Your task to perform on an android device: stop showing notifications on the lock screen Image 0: 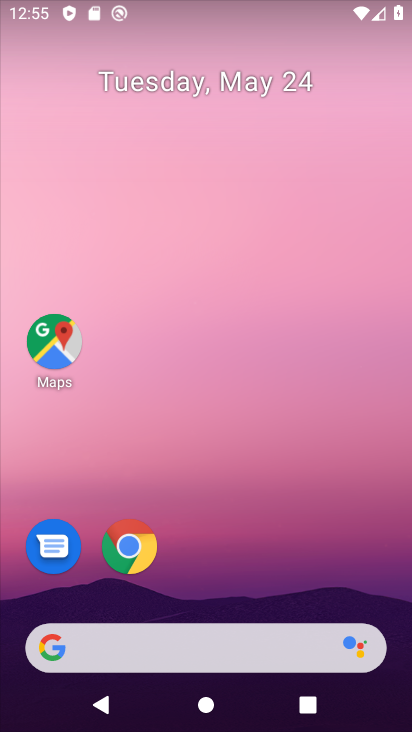
Step 0: drag from (161, 546) to (245, 141)
Your task to perform on an android device: stop showing notifications on the lock screen Image 1: 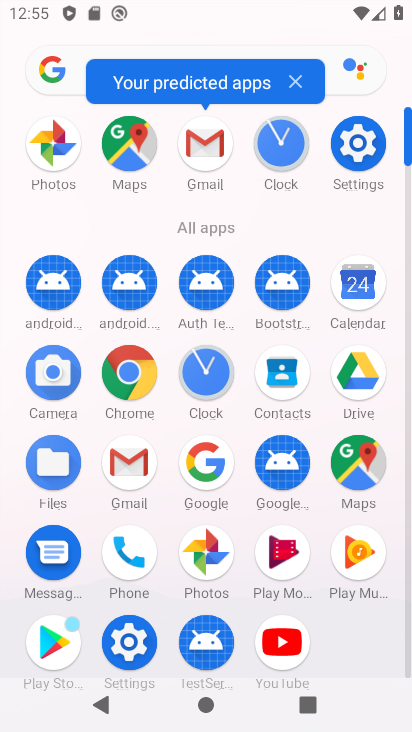
Step 1: click (370, 153)
Your task to perform on an android device: stop showing notifications on the lock screen Image 2: 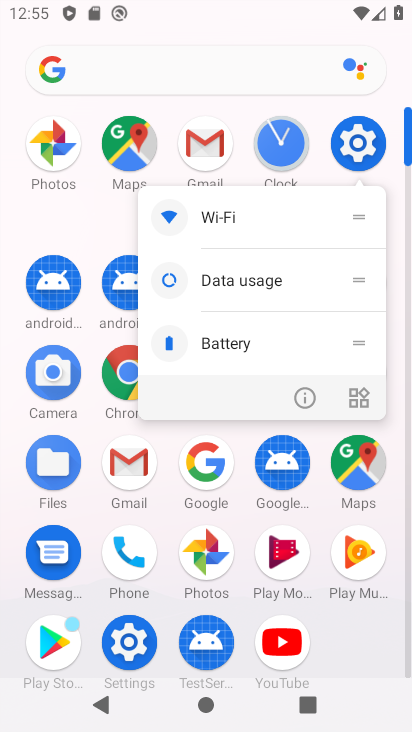
Step 2: click (301, 409)
Your task to perform on an android device: stop showing notifications on the lock screen Image 3: 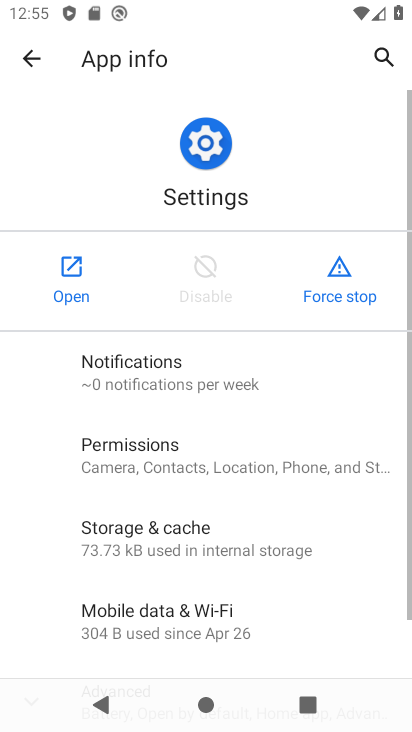
Step 3: click (70, 292)
Your task to perform on an android device: stop showing notifications on the lock screen Image 4: 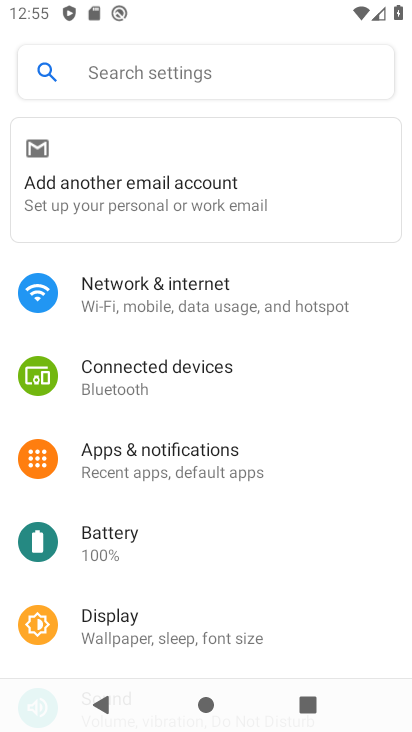
Step 4: drag from (177, 640) to (230, 116)
Your task to perform on an android device: stop showing notifications on the lock screen Image 5: 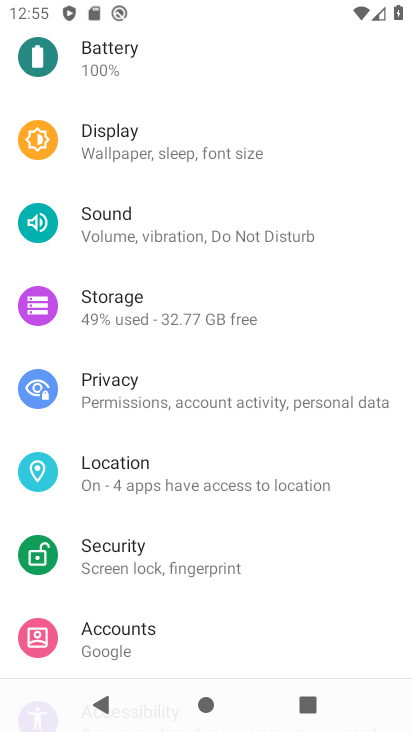
Step 5: drag from (173, 593) to (257, 296)
Your task to perform on an android device: stop showing notifications on the lock screen Image 6: 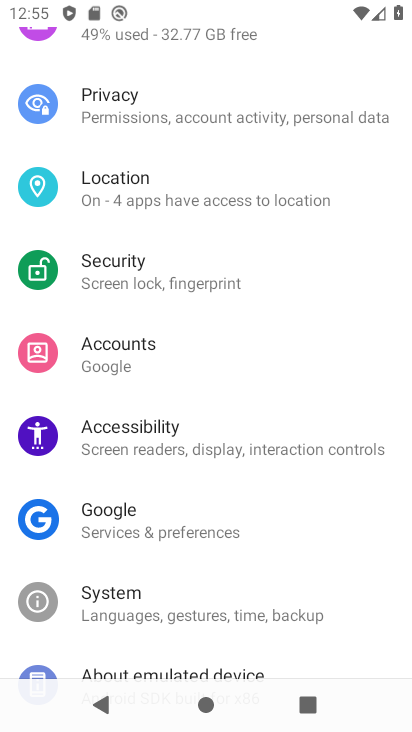
Step 6: drag from (254, 307) to (217, 729)
Your task to perform on an android device: stop showing notifications on the lock screen Image 7: 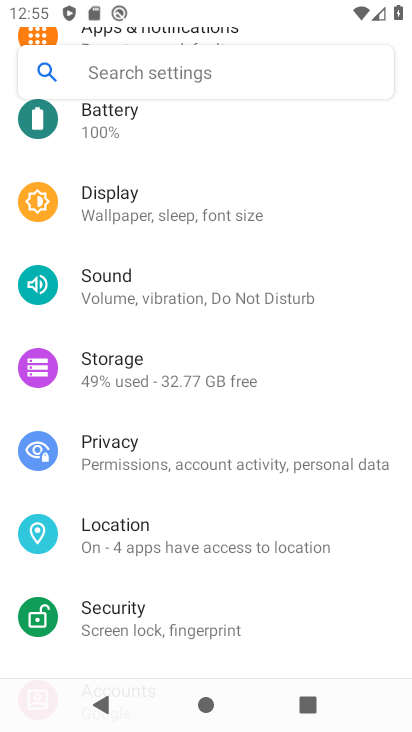
Step 7: drag from (147, 218) to (246, 693)
Your task to perform on an android device: stop showing notifications on the lock screen Image 8: 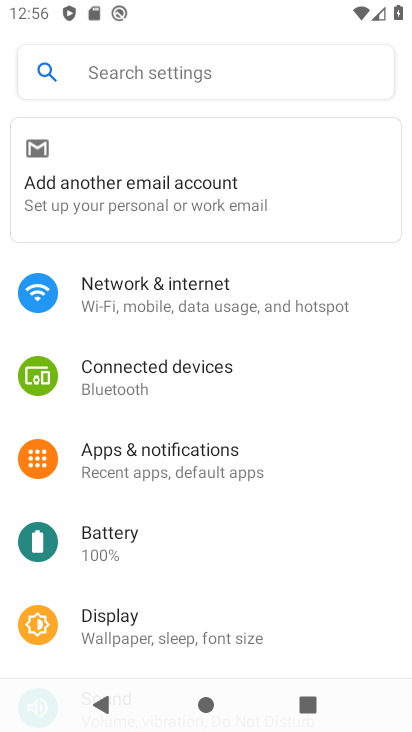
Step 8: click (150, 450)
Your task to perform on an android device: stop showing notifications on the lock screen Image 9: 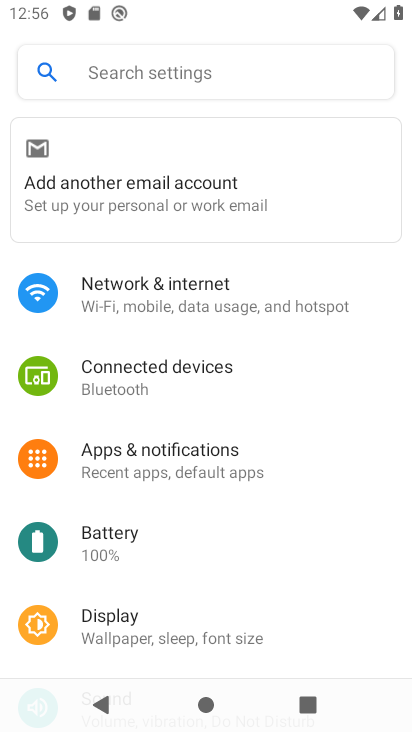
Step 9: drag from (197, 563) to (311, 163)
Your task to perform on an android device: stop showing notifications on the lock screen Image 10: 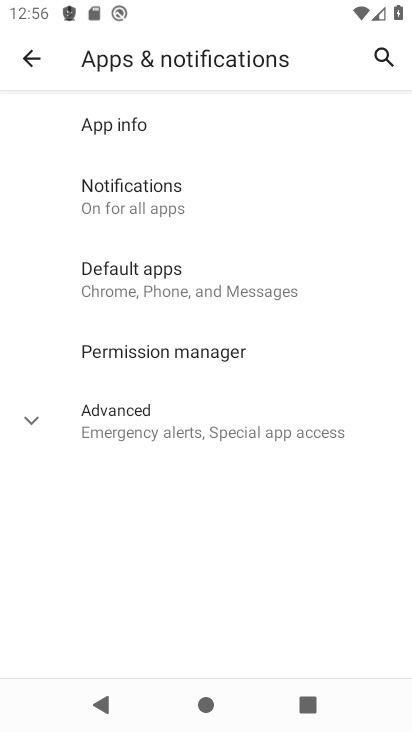
Step 10: drag from (194, 513) to (285, 202)
Your task to perform on an android device: stop showing notifications on the lock screen Image 11: 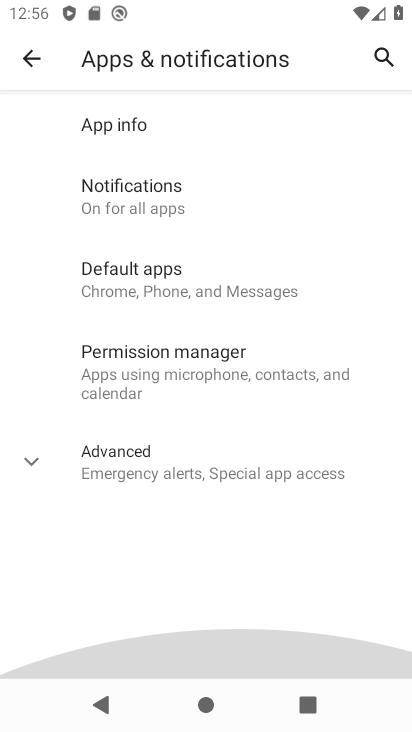
Step 11: drag from (283, 189) to (235, 591)
Your task to perform on an android device: stop showing notifications on the lock screen Image 12: 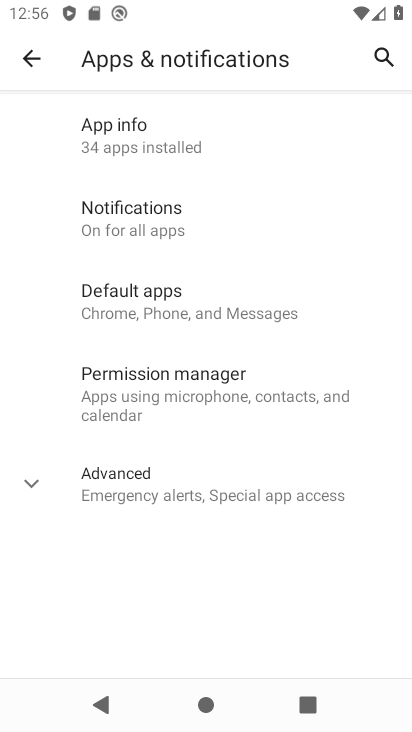
Step 12: drag from (245, 532) to (274, 161)
Your task to perform on an android device: stop showing notifications on the lock screen Image 13: 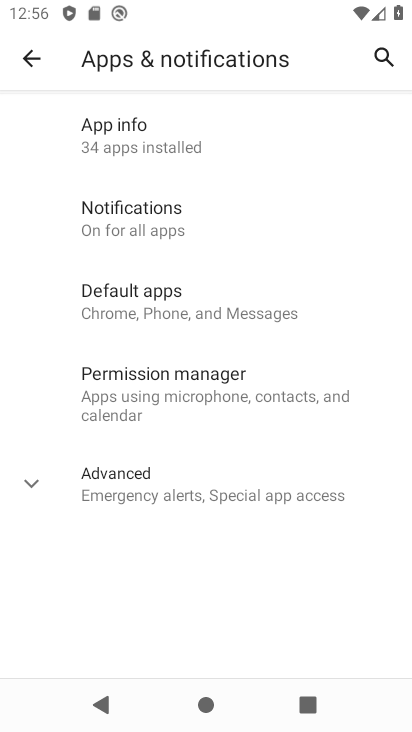
Step 13: drag from (227, 233) to (214, 730)
Your task to perform on an android device: stop showing notifications on the lock screen Image 14: 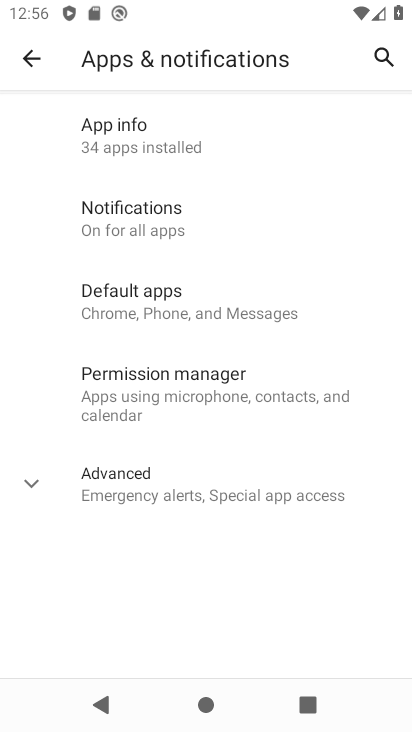
Step 14: click (22, 56)
Your task to perform on an android device: stop showing notifications on the lock screen Image 15: 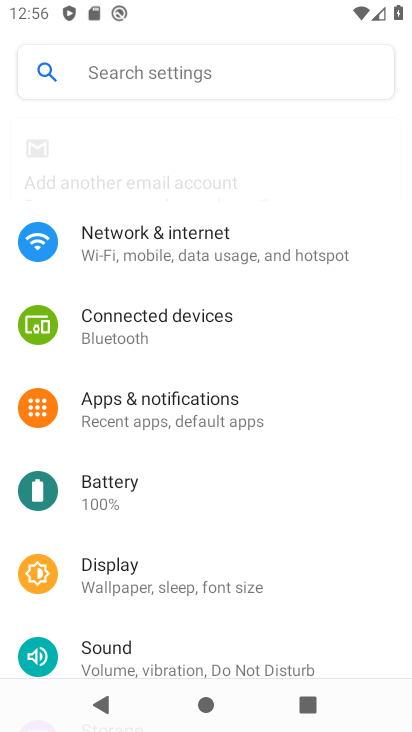
Step 15: drag from (222, 603) to (297, 41)
Your task to perform on an android device: stop showing notifications on the lock screen Image 16: 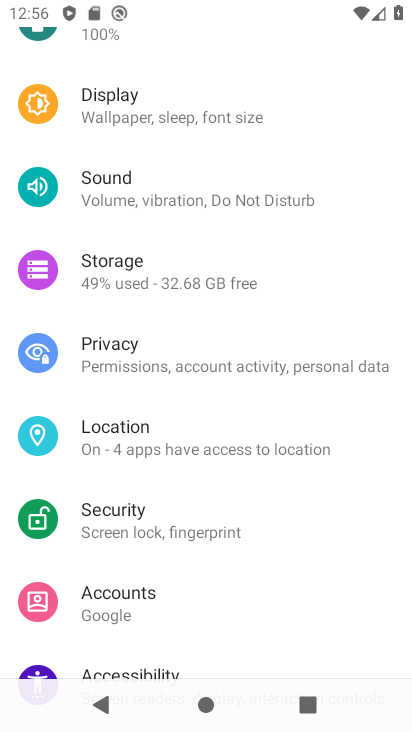
Step 16: drag from (215, 594) to (288, 195)
Your task to perform on an android device: stop showing notifications on the lock screen Image 17: 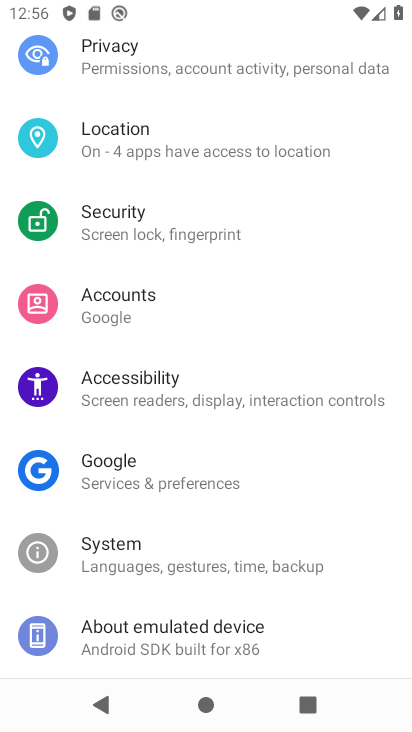
Step 17: drag from (286, 190) to (245, 721)
Your task to perform on an android device: stop showing notifications on the lock screen Image 18: 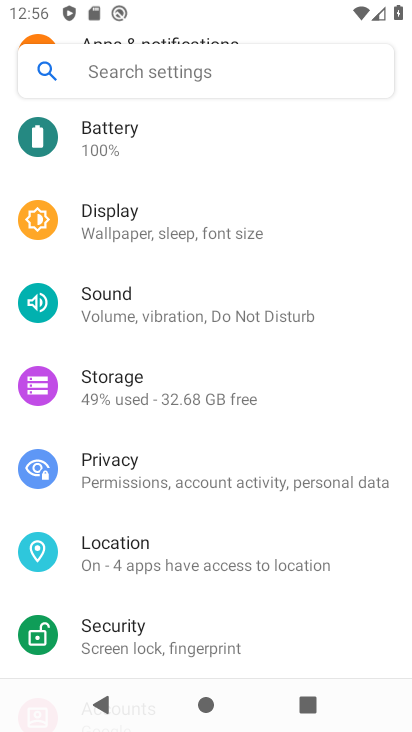
Step 18: drag from (177, 413) to (346, 704)
Your task to perform on an android device: stop showing notifications on the lock screen Image 19: 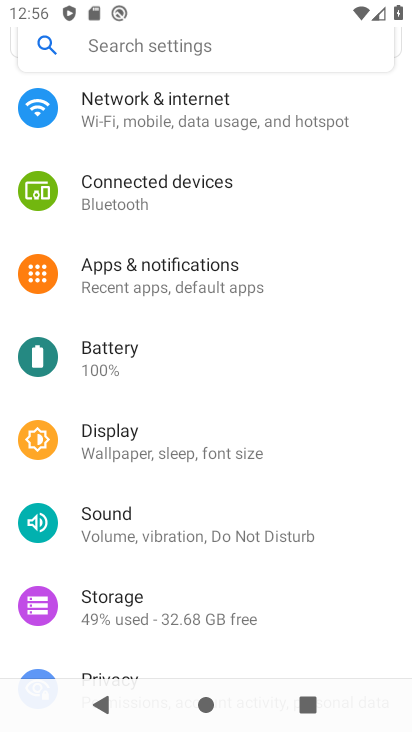
Step 19: click (161, 294)
Your task to perform on an android device: stop showing notifications on the lock screen Image 20: 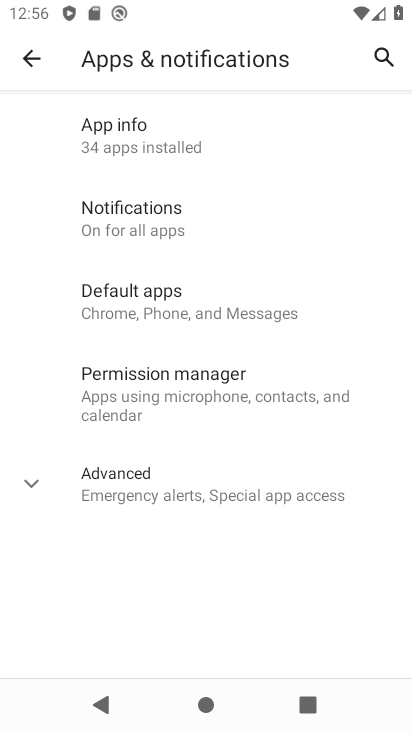
Step 20: click (140, 194)
Your task to perform on an android device: stop showing notifications on the lock screen Image 21: 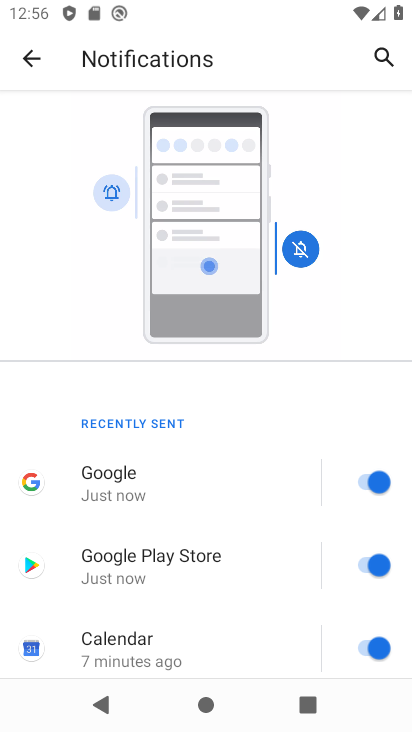
Step 21: drag from (213, 571) to (379, 32)
Your task to perform on an android device: stop showing notifications on the lock screen Image 22: 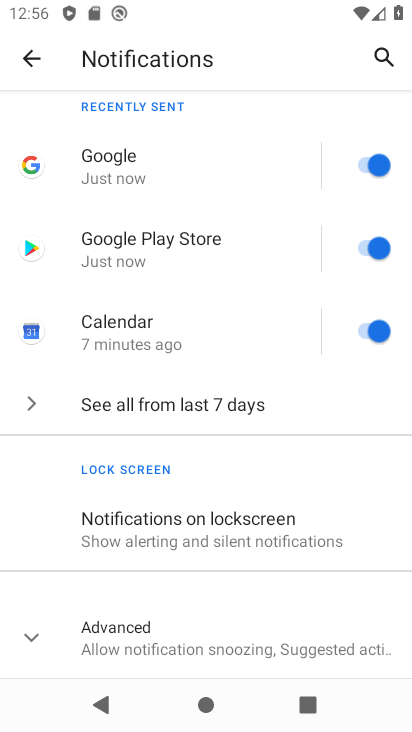
Step 22: click (177, 529)
Your task to perform on an android device: stop showing notifications on the lock screen Image 23: 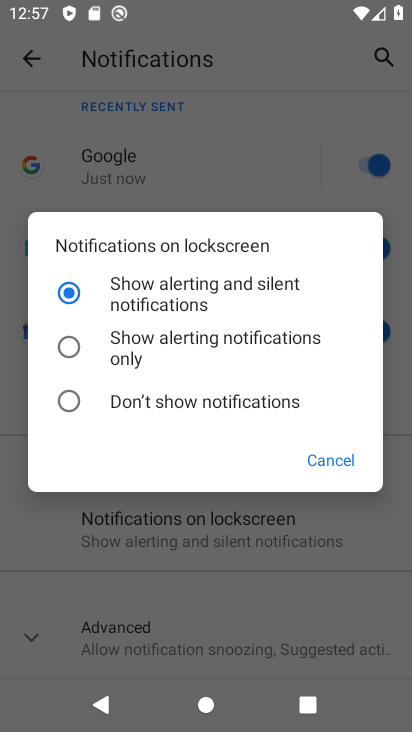
Step 23: click (90, 390)
Your task to perform on an android device: stop showing notifications on the lock screen Image 24: 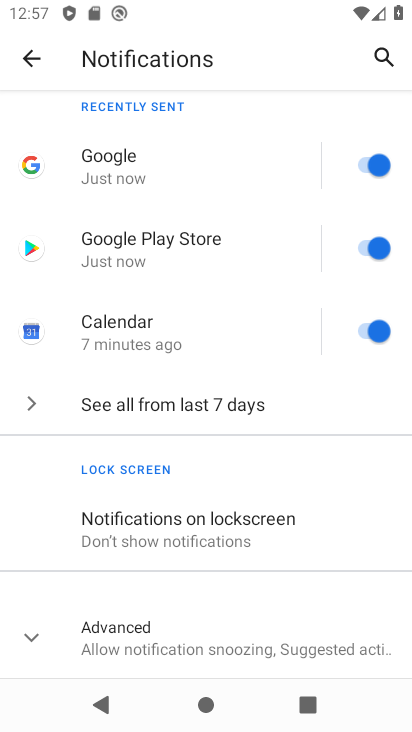
Step 24: task complete